Your task to perform on an android device: Is it going to rain tomorrow? Image 0: 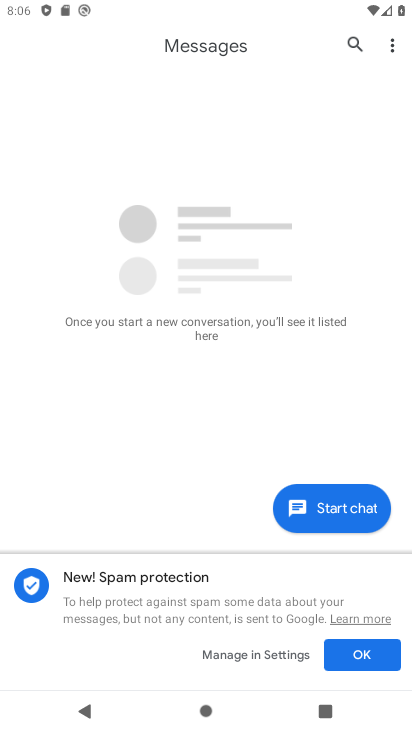
Step 0: press home button
Your task to perform on an android device: Is it going to rain tomorrow? Image 1: 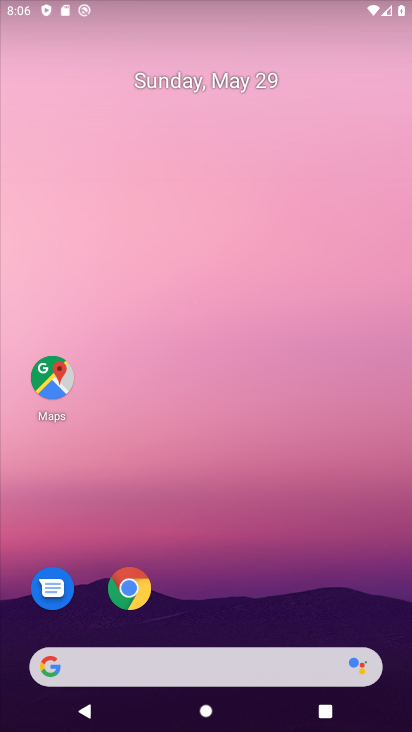
Step 1: click (139, 586)
Your task to perform on an android device: Is it going to rain tomorrow? Image 2: 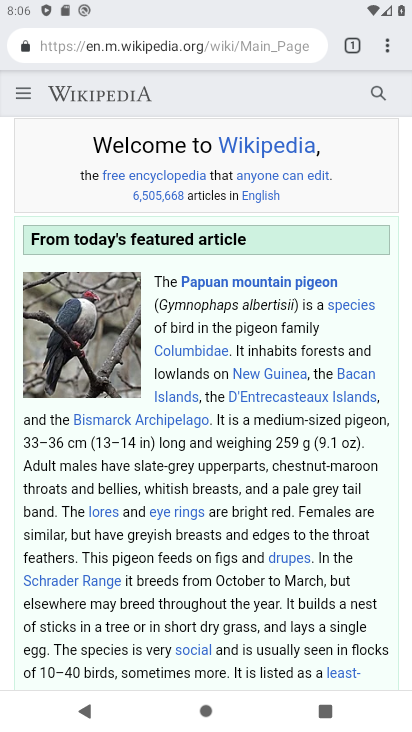
Step 2: click (387, 47)
Your task to perform on an android device: Is it going to rain tomorrow? Image 3: 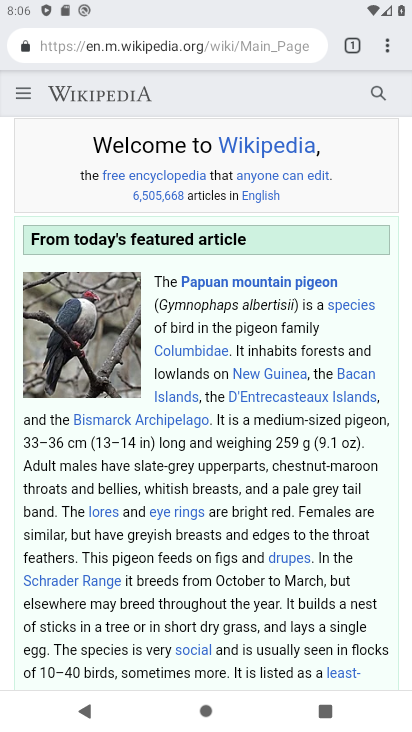
Step 3: click (380, 41)
Your task to perform on an android device: Is it going to rain tomorrow? Image 4: 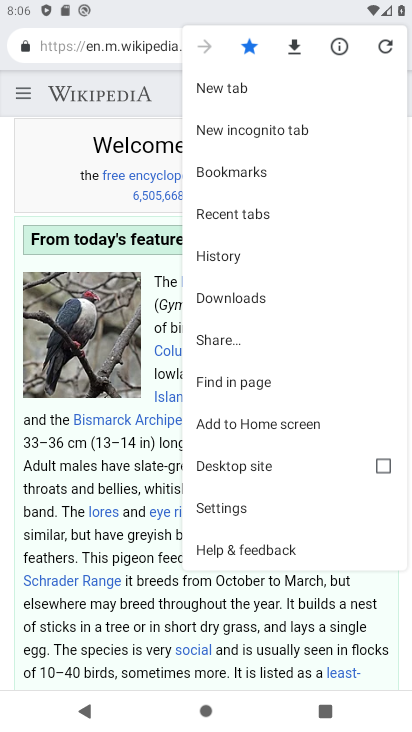
Step 4: click (193, 100)
Your task to perform on an android device: Is it going to rain tomorrow? Image 5: 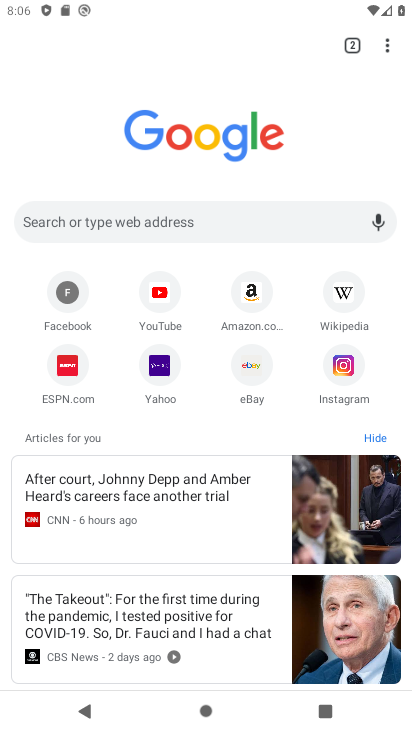
Step 5: click (94, 222)
Your task to perform on an android device: Is it going to rain tomorrow? Image 6: 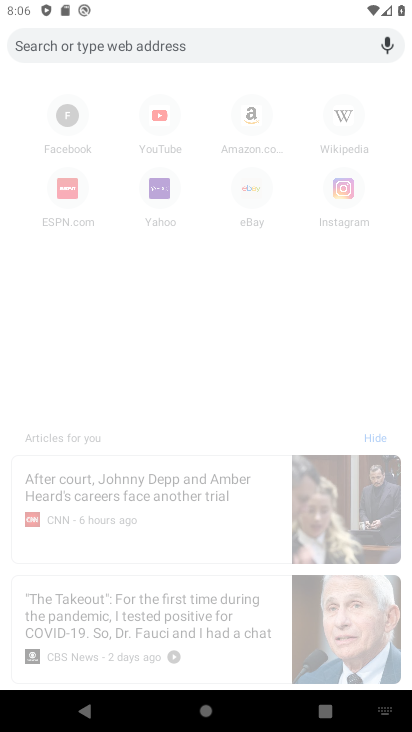
Step 6: type "Is it going to rain tomorrow?"
Your task to perform on an android device: Is it going to rain tomorrow? Image 7: 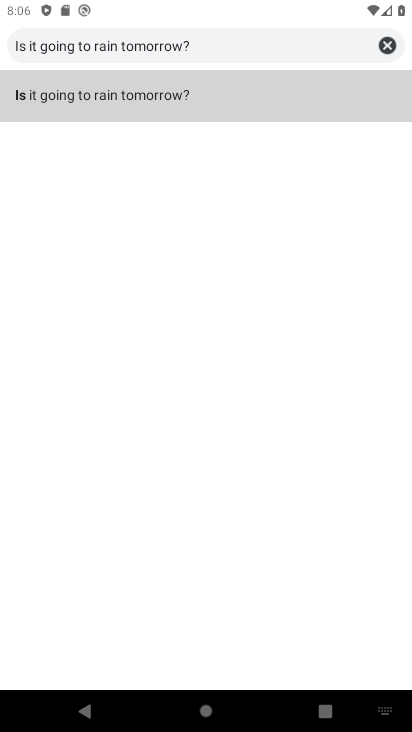
Step 7: click (148, 88)
Your task to perform on an android device: Is it going to rain tomorrow? Image 8: 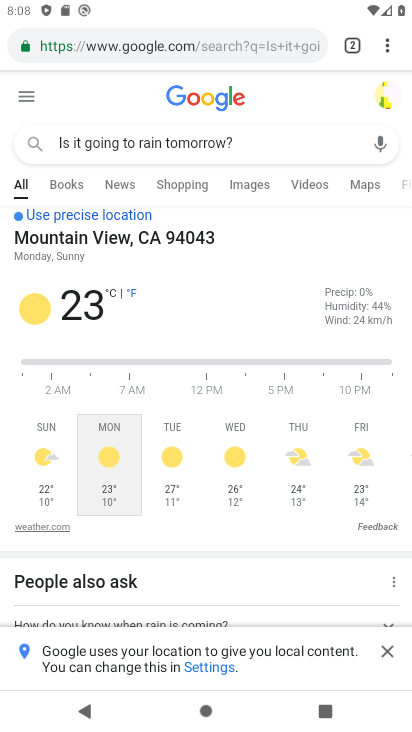
Step 8: task complete